Your task to perform on an android device: Is it going to rain today? Image 0: 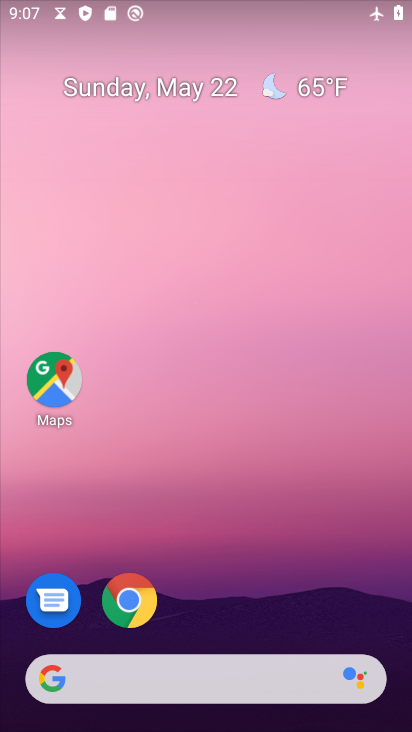
Step 0: drag from (192, 442) to (212, 152)
Your task to perform on an android device: Is it going to rain today? Image 1: 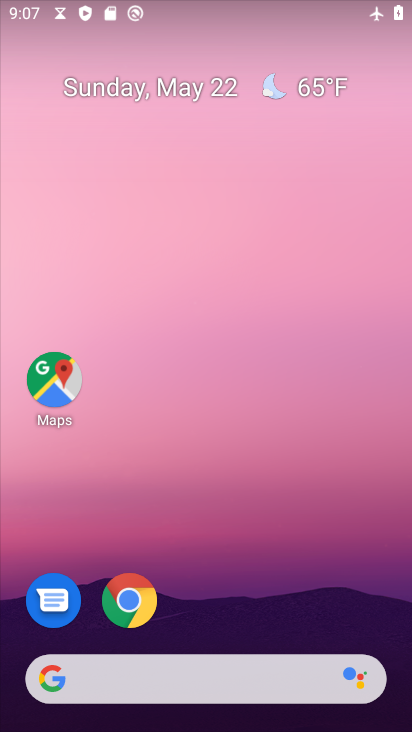
Step 1: drag from (240, 231) to (246, 189)
Your task to perform on an android device: Is it going to rain today? Image 2: 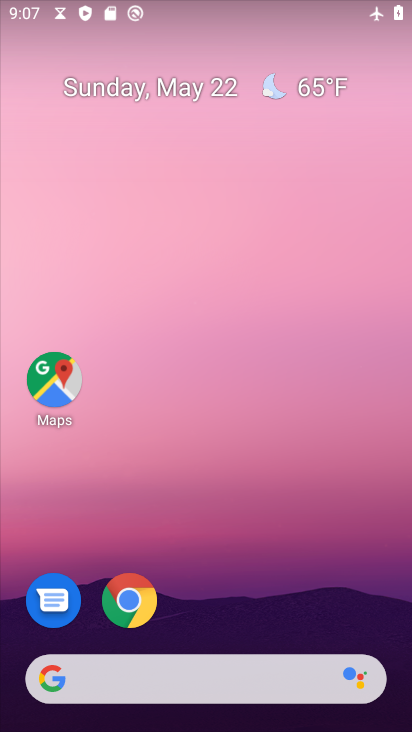
Step 2: drag from (228, 527) to (212, 71)
Your task to perform on an android device: Is it going to rain today? Image 3: 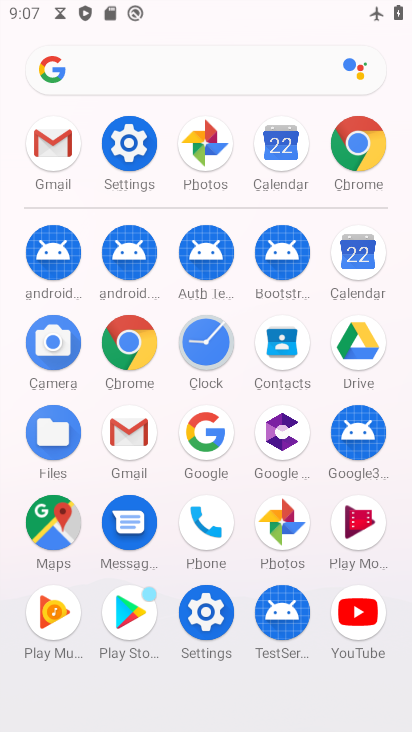
Step 3: drag from (186, 176) to (186, 138)
Your task to perform on an android device: Is it going to rain today? Image 4: 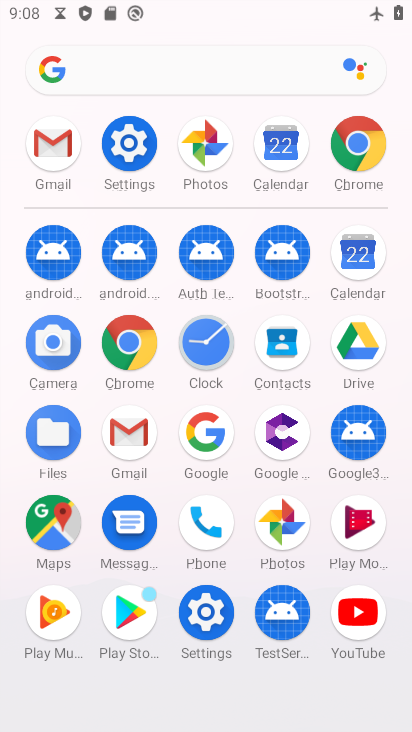
Step 4: click (218, 458)
Your task to perform on an android device: Is it going to rain today? Image 5: 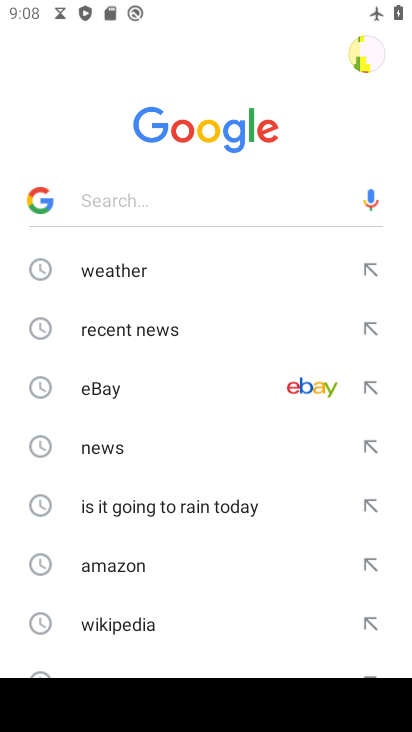
Step 5: drag from (185, 542) to (230, 227)
Your task to perform on an android device: Is it going to rain today? Image 6: 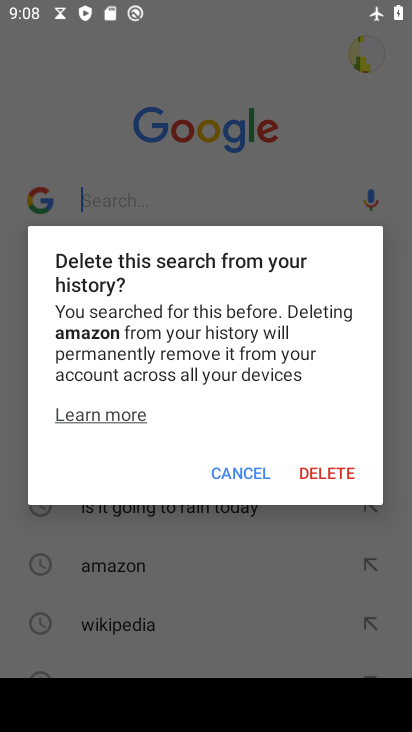
Step 6: click (215, 468)
Your task to perform on an android device: Is it going to rain today? Image 7: 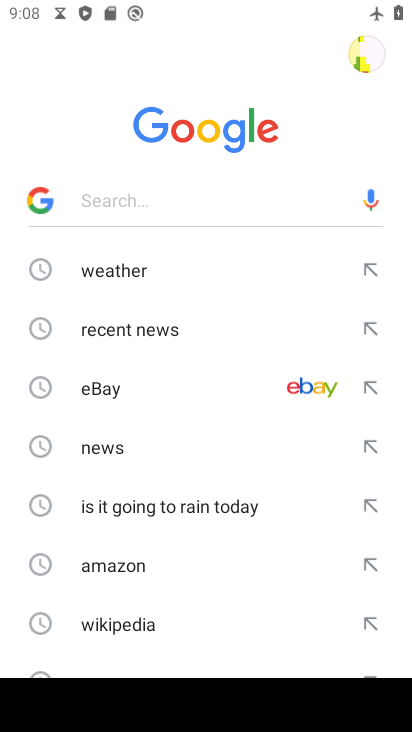
Step 7: click (244, 476)
Your task to perform on an android device: Is it going to rain today? Image 8: 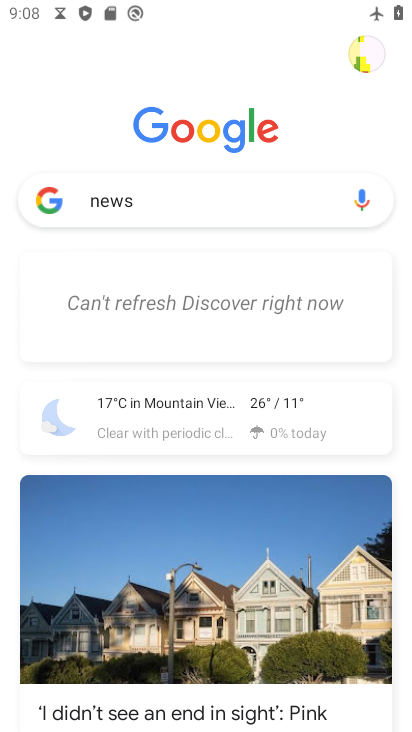
Step 8: click (95, 281)
Your task to perform on an android device: Is it going to rain today? Image 9: 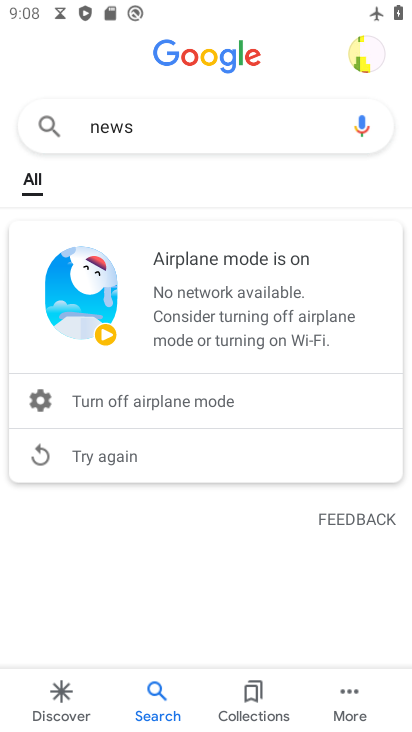
Step 9: task complete